Your task to perform on an android device: change the clock display to analog Image 0: 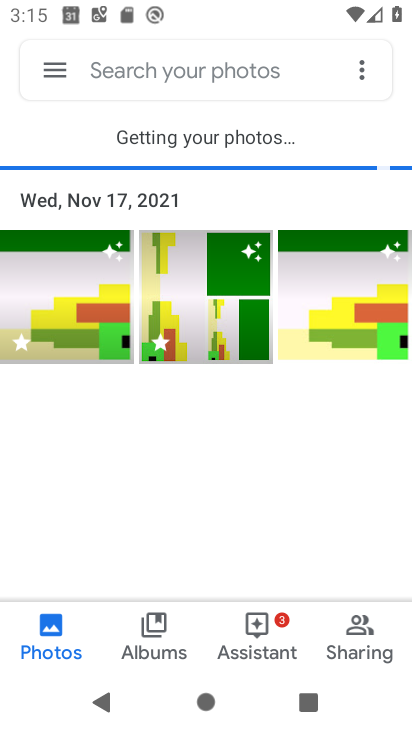
Step 0: task complete